Your task to perform on an android device: toggle wifi Image 0: 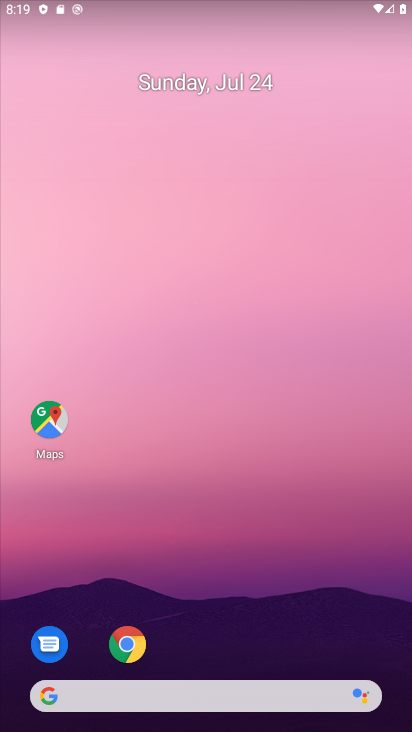
Step 0: drag from (91, 5) to (102, 432)
Your task to perform on an android device: toggle wifi Image 1: 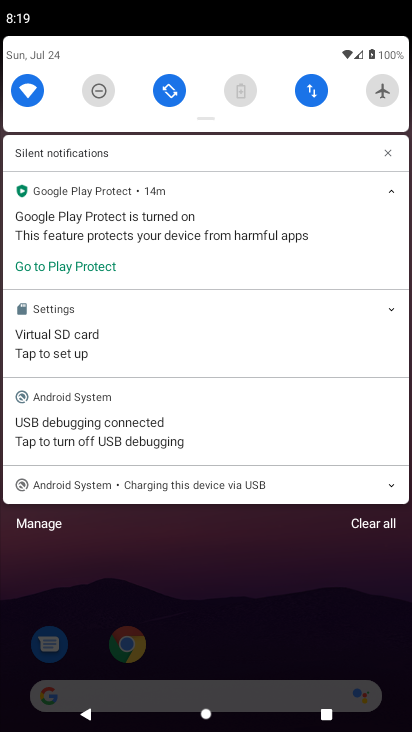
Step 1: click (30, 90)
Your task to perform on an android device: toggle wifi Image 2: 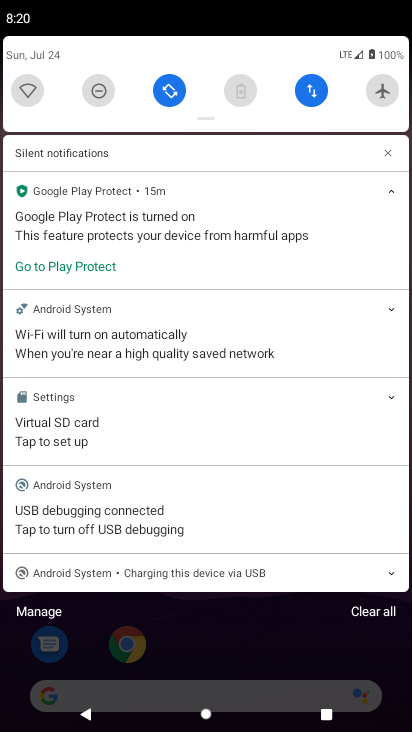
Step 2: task complete